Your task to perform on an android device: turn on airplane mode Image 0: 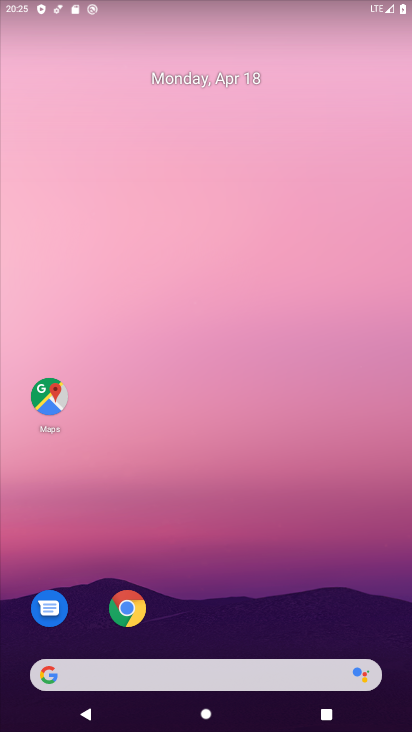
Step 0: drag from (228, 563) to (310, 240)
Your task to perform on an android device: turn on airplane mode Image 1: 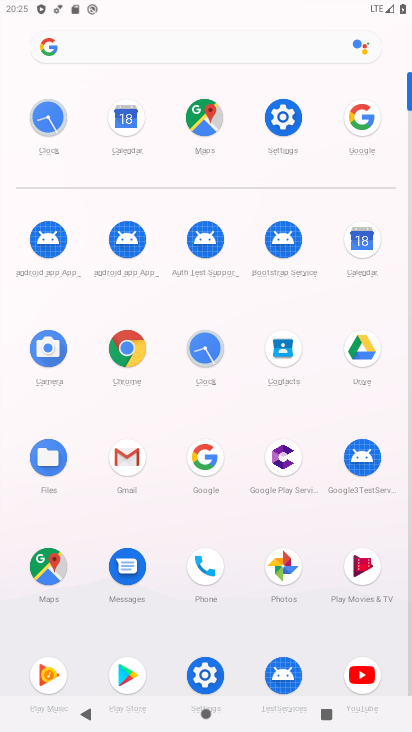
Step 1: click (278, 115)
Your task to perform on an android device: turn on airplane mode Image 2: 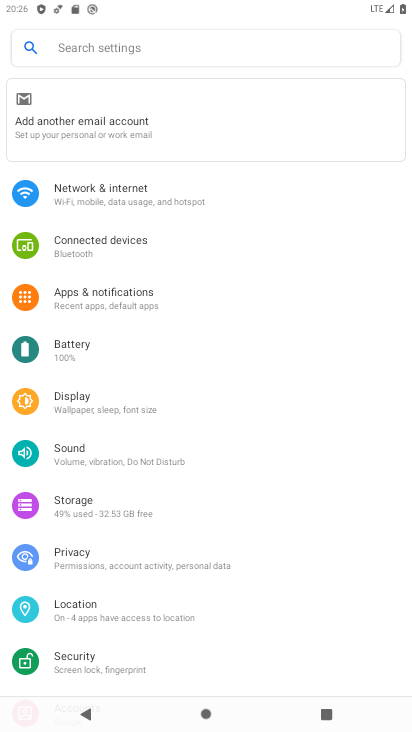
Step 2: click (131, 195)
Your task to perform on an android device: turn on airplane mode Image 3: 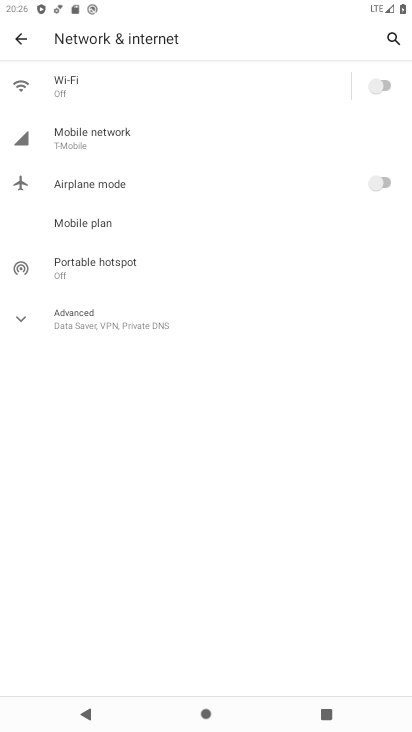
Step 3: click (377, 185)
Your task to perform on an android device: turn on airplane mode Image 4: 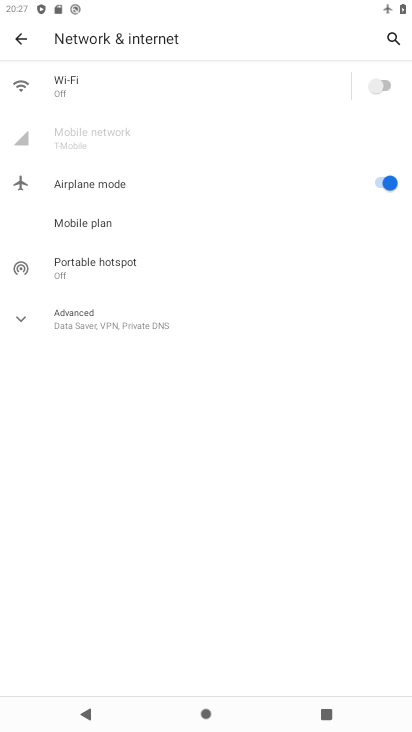
Step 4: task complete